Your task to perform on an android device: toggle improve location accuracy Image 0: 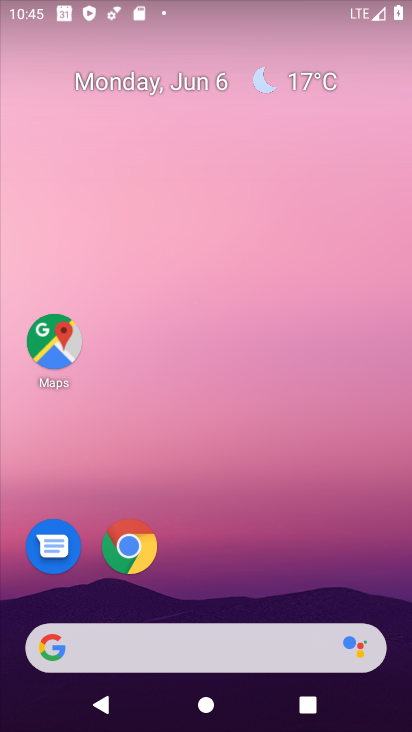
Step 0: drag from (302, 514) to (210, 11)
Your task to perform on an android device: toggle improve location accuracy Image 1: 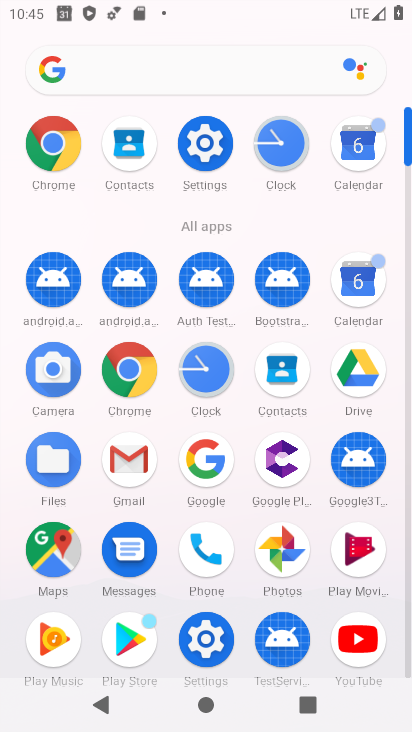
Step 1: click (197, 228)
Your task to perform on an android device: toggle improve location accuracy Image 2: 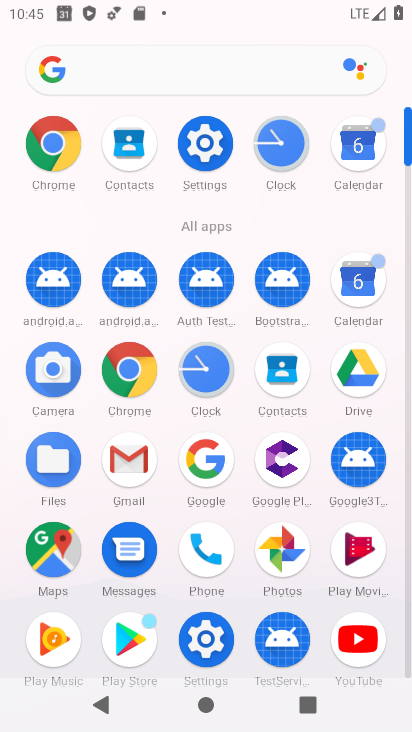
Step 2: click (207, 148)
Your task to perform on an android device: toggle improve location accuracy Image 3: 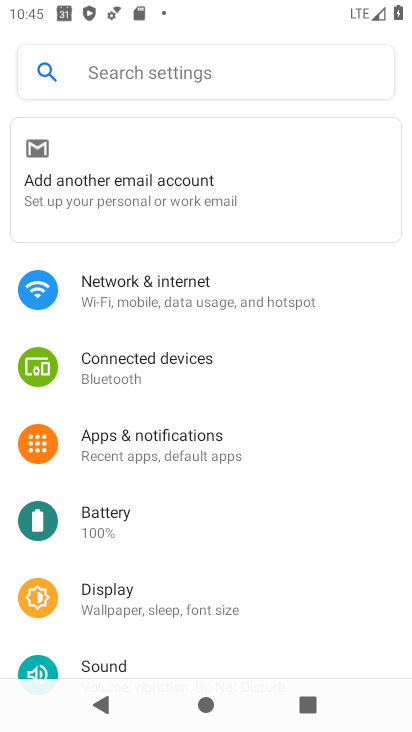
Step 3: drag from (189, 560) to (191, 139)
Your task to perform on an android device: toggle improve location accuracy Image 4: 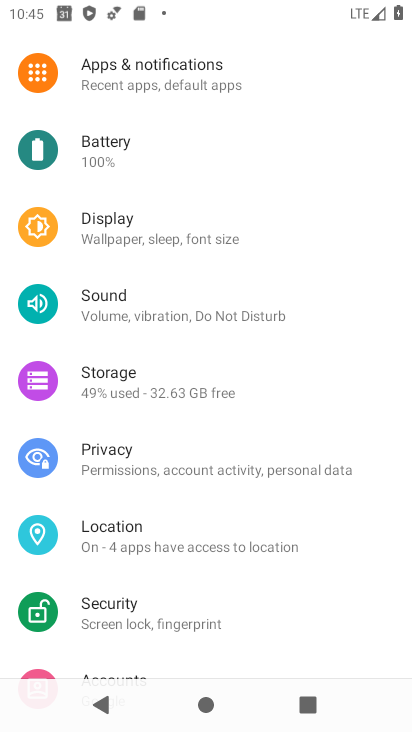
Step 4: click (161, 536)
Your task to perform on an android device: toggle improve location accuracy Image 5: 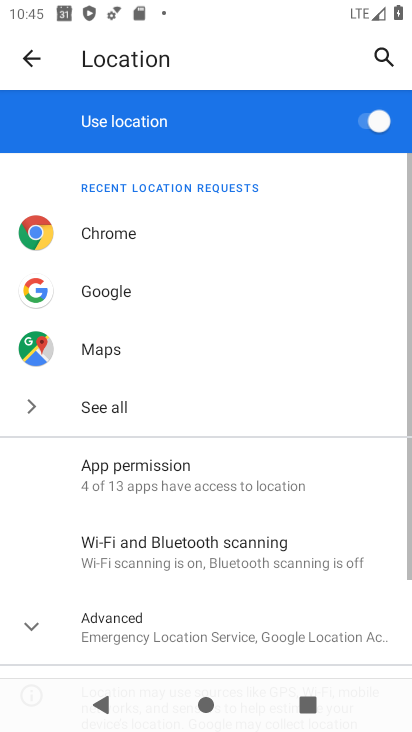
Step 5: click (188, 630)
Your task to perform on an android device: toggle improve location accuracy Image 6: 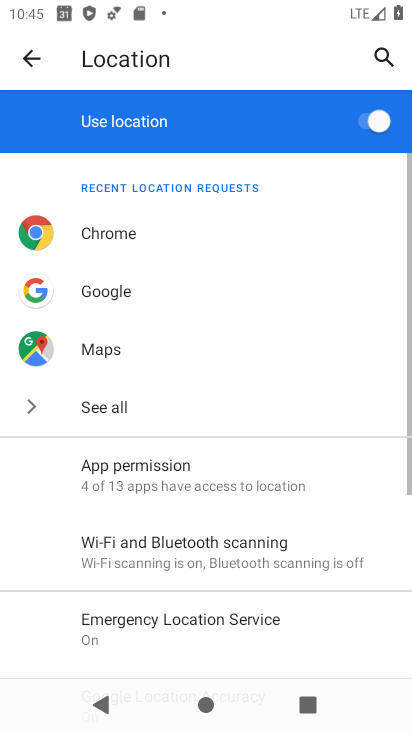
Step 6: drag from (282, 644) to (301, 226)
Your task to perform on an android device: toggle improve location accuracy Image 7: 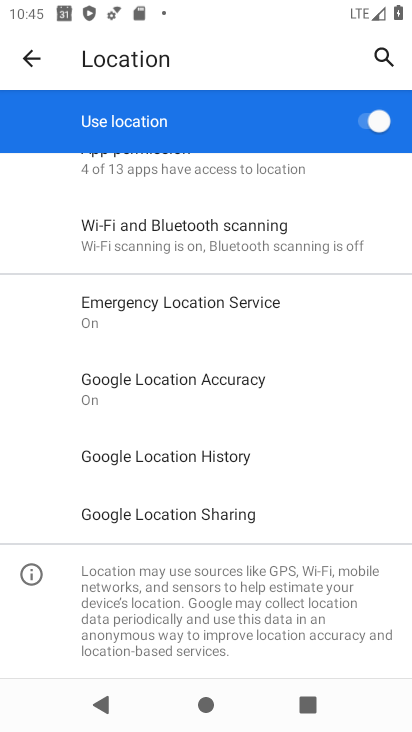
Step 7: click (226, 395)
Your task to perform on an android device: toggle improve location accuracy Image 8: 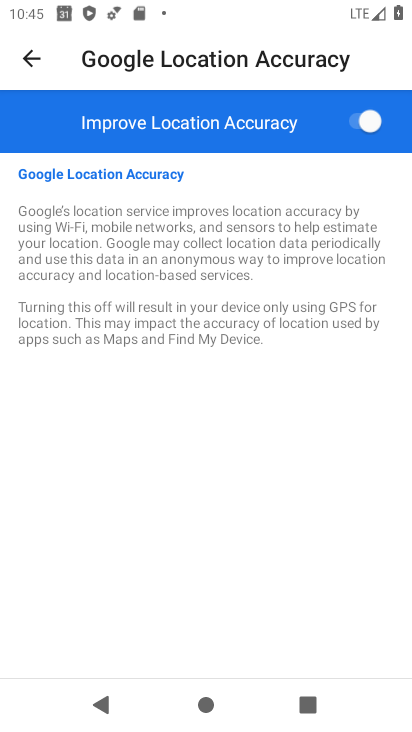
Step 8: click (353, 117)
Your task to perform on an android device: toggle improve location accuracy Image 9: 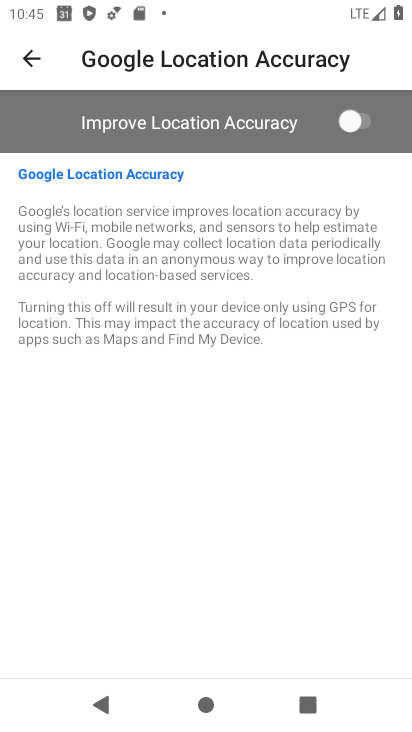
Step 9: task complete